Your task to perform on an android device: turn off javascript in the chrome app Image 0: 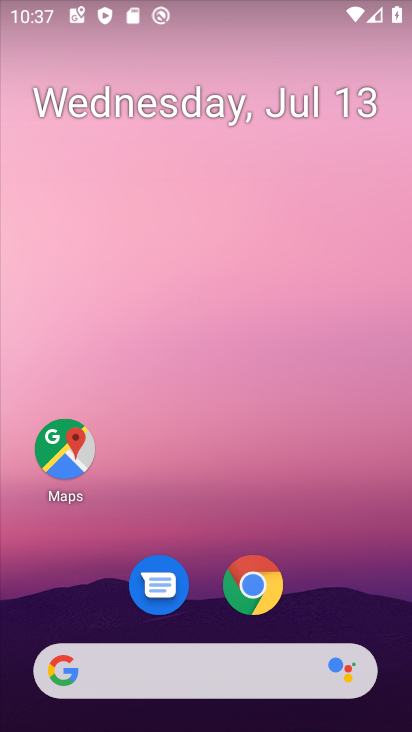
Step 0: click (259, 581)
Your task to perform on an android device: turn off javascript in the chrome app Image 1: 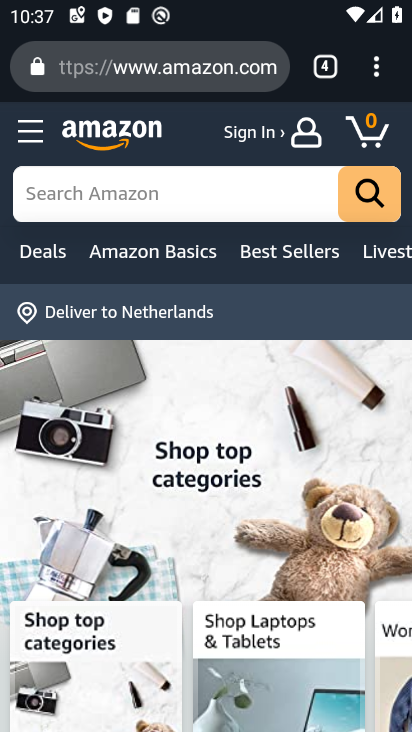
Step 1: click (371, 70)
Your task to perform on an android device: turn off javascript in the chrome app Image 2: 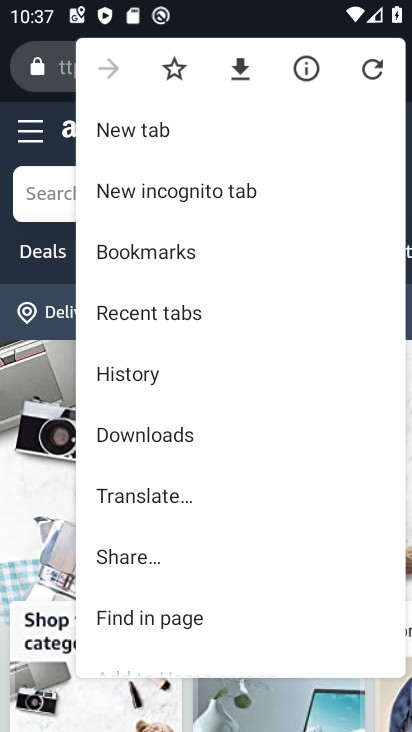
Step 2: drag from (210, 545) to (210, 178)
Your task to perform on an android device: turn off javascript in the chrome app Image 3: 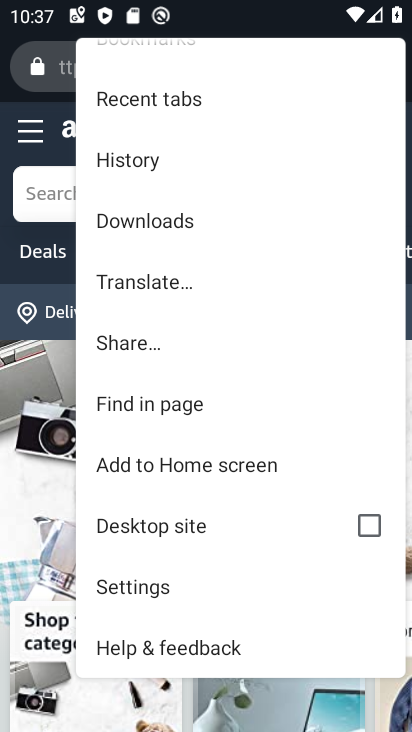
Step 3: click (161, 581)
Your task to perform on an android device: turn off javascript in the chrome app Image 4: 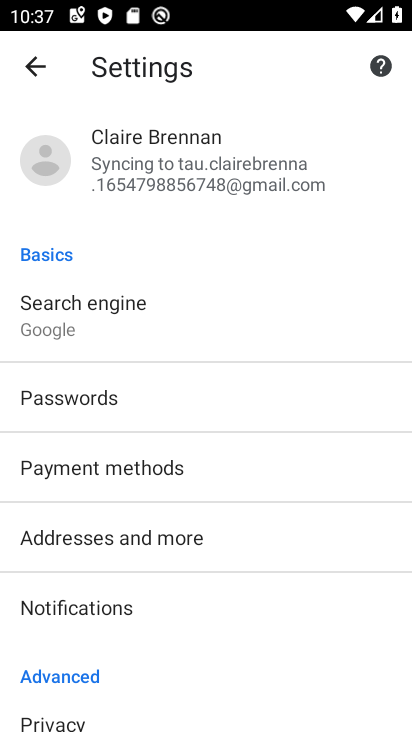
Step 4: drag from (249, 542) to (301, 171)
Your task to perform on an android device: turn off javascript in the chrome app Image 5: 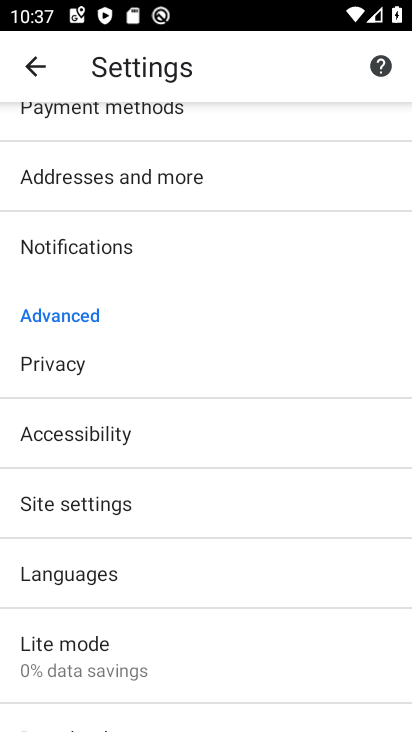
Step 5: click (112, 515)
Your task to perform on an android device: turn off javascript in the chrome app Image 6: 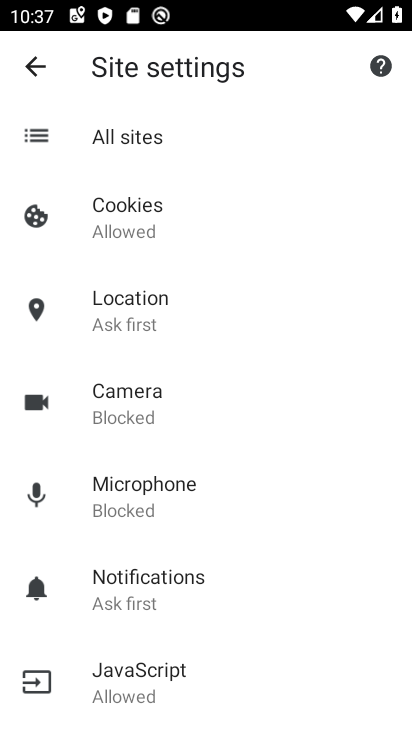
Step 6: drag from (243, 576) to (267, 342)
Your task to perform on an android device: turn off javascript in the chrome app Image 7: 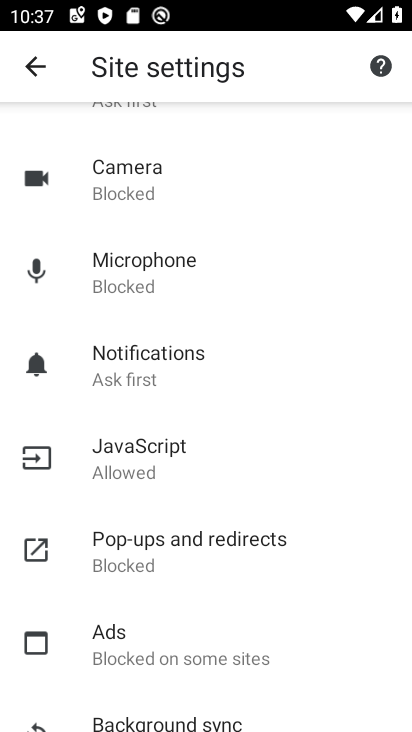
Step 7: click (175, 452)
Your task to perform on an android device: turn off javascript in the chrome app Image 8: 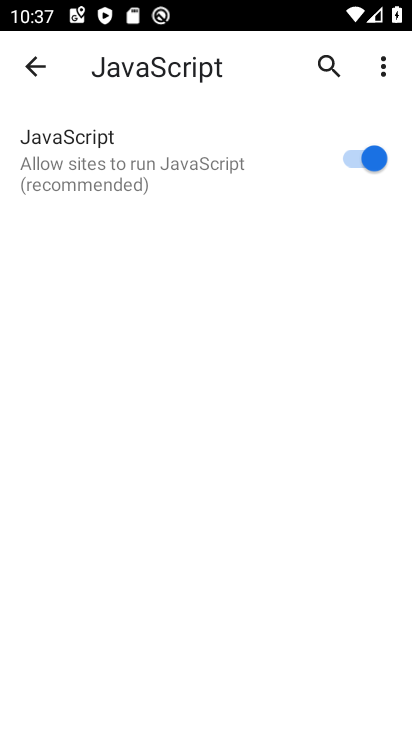
Step 8: click (349, 153)
Your task to perform on an android device: turn off javascript in the chrome app Image 9: 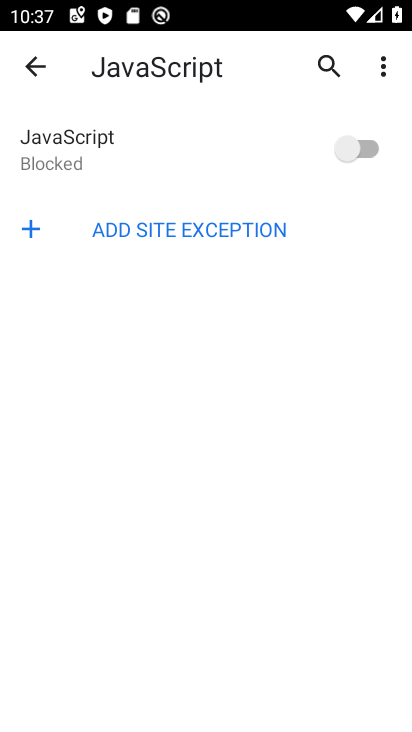
Step 9: task complete